Your task to perform on an android device: Open the phone app and click the voicemail tab. Image 0: 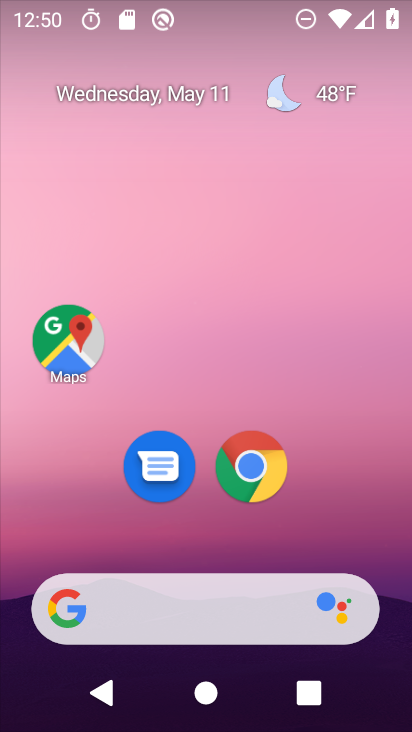
Step 0: drag from (214, 544) to (230, 42)
Your task to perform on an android device: Open the phone app and click the voicemail tab. Image 1: 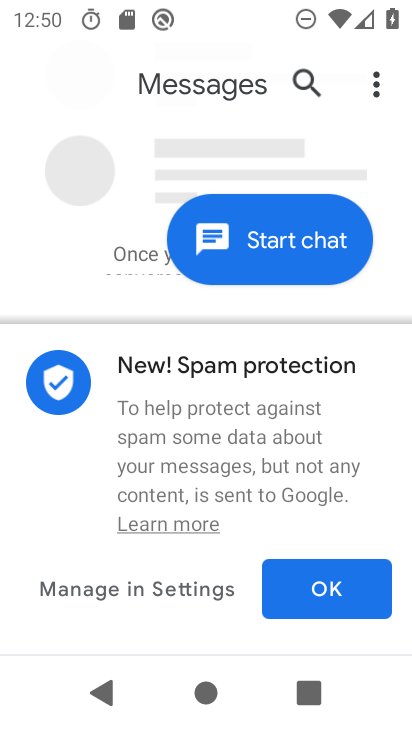
Step 1: press home button
Your task to perform on an android device: Open the phone app and click the voicemail tab. Image 2: 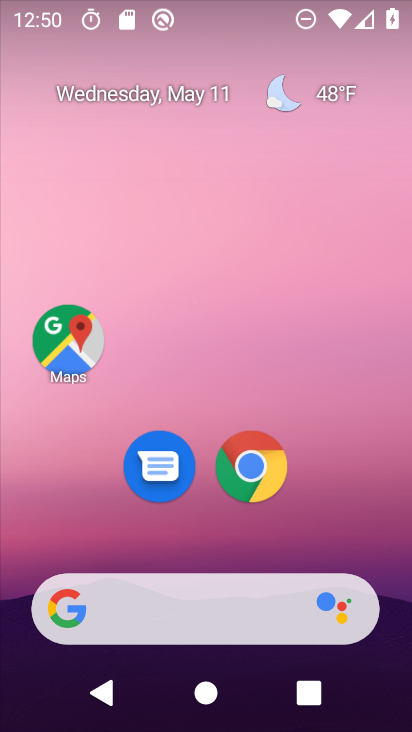
Step 2: drag from (206, 546) to (209, 91)
Your task to perform on an android device: Open the phone app and click the voicemail tab. Image 3: 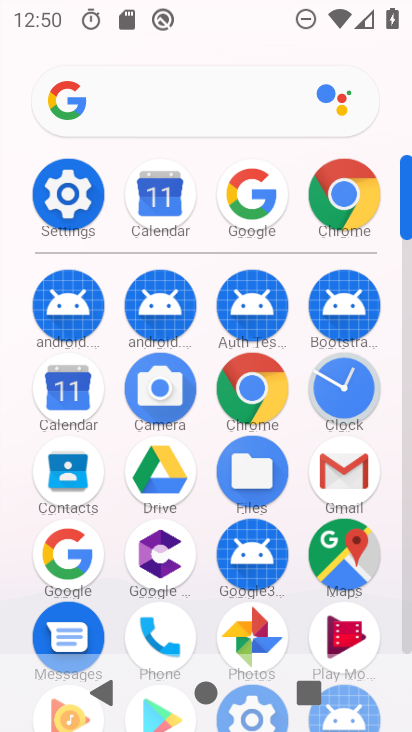
Step 3: click (165, 627)
Your task to perform on an android device: Open the phone app and click the voicemail tab. Image 4: 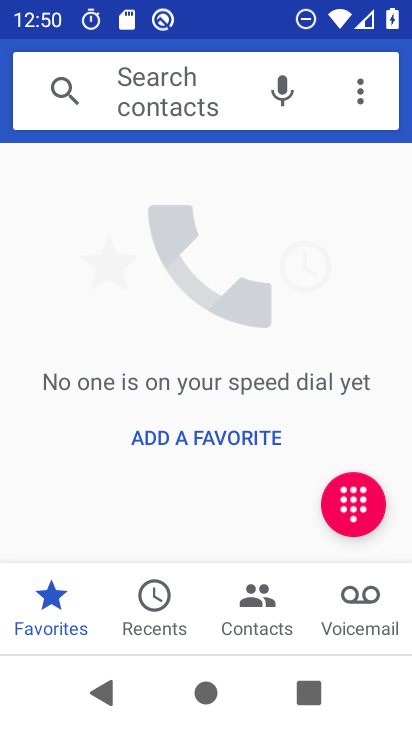
Step 4: click (355, 594)
Your task to perform on an android device: Open the phone app and click the voicemail tab. Image 5: 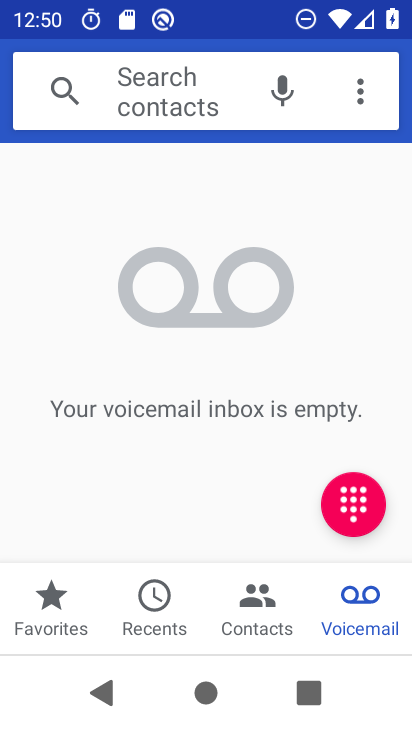
Step 5: task complete